Your task to perform on an android device: read, delete, or share a saved page in the chrome app Image 0: 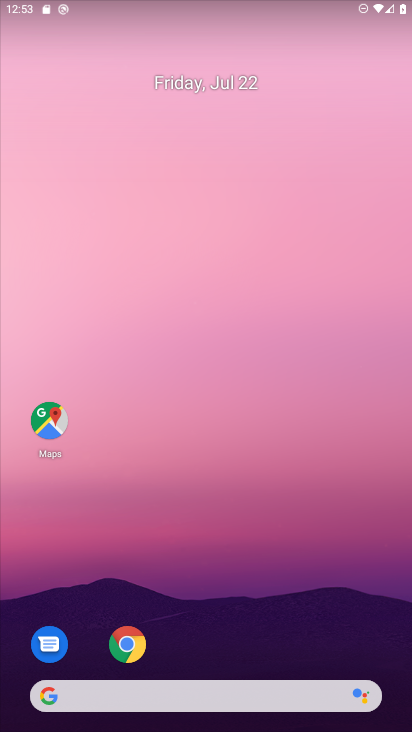
Step 0: click (134, 656)
Your task to perform on an android device: read, delete, or share a saved page in the chrome app Image 1: 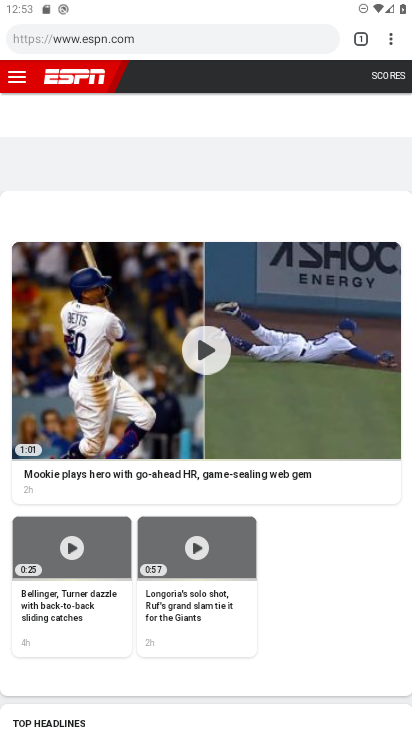
Step 1: click (399, 41)
Your task to perform on an android device: read, delete, or share a saved page in the chrome app Image 2: 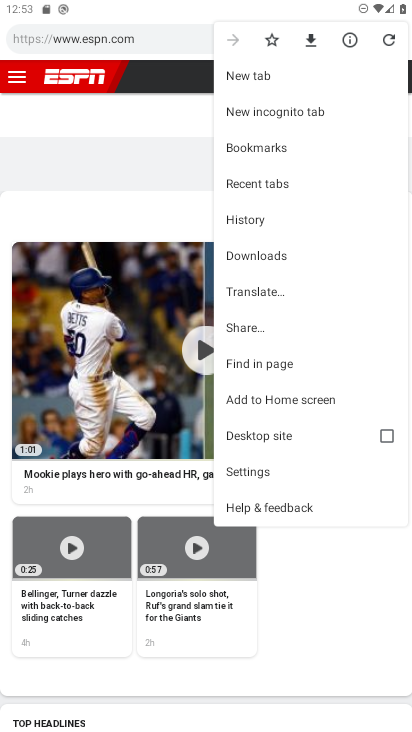
Step 2: click (266, 265)
Your task to perform on an android device: read, delete, or share a saved page in the chrome app Image 3: 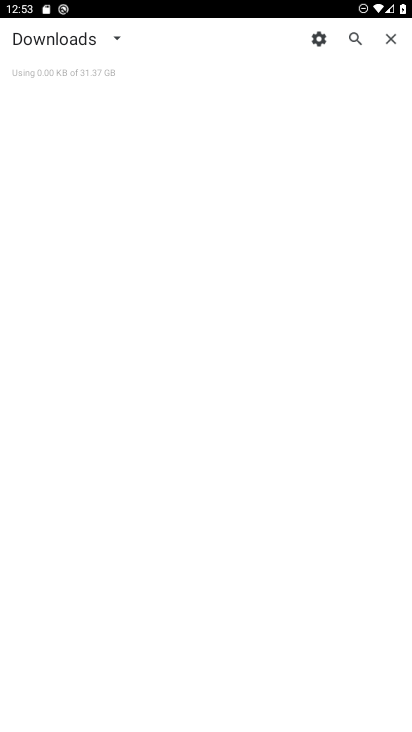
Step 3: click (266, 265)
Your task to perform on an android device: read, delete, or share a saved page in the chrome app Image 4: 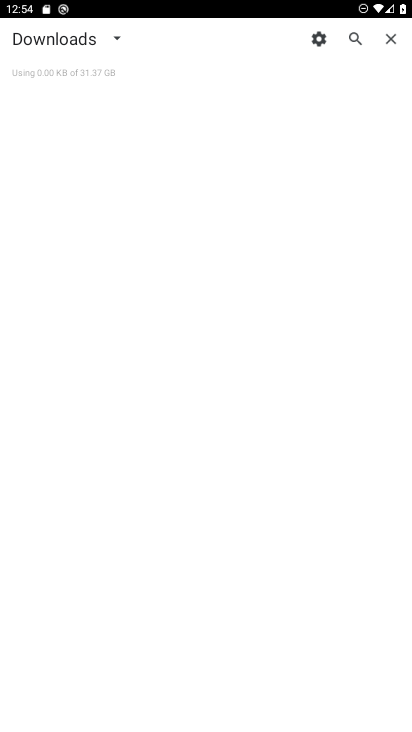
Step 4: task complete